Your task to perform on an android device: snooze an email in the gmail app Image 0: 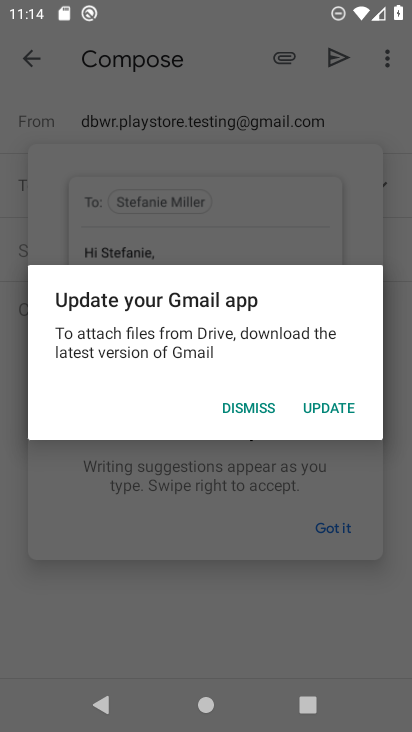
Step 0: press home button
Your task to perform on an android device: snooze an email in the gmail app Image 1: 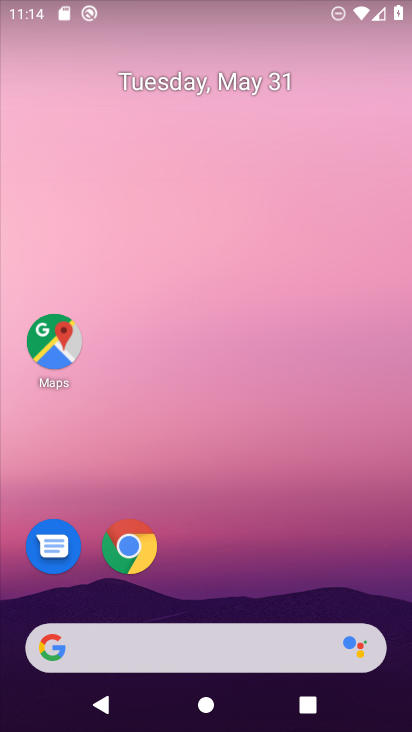
Step 1: drag from (316, 626) to (344, 76)
Your task to perform on an android device: snooze an email in the gmail app Image 2: 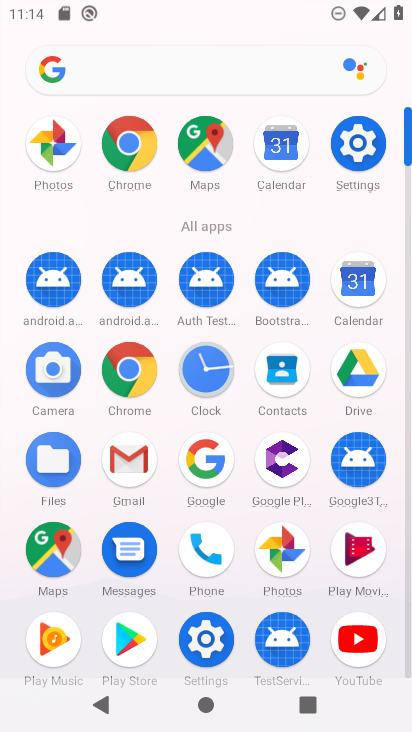
Step 2: click (123, 465)
Your task to perform on an android device: snooze an email in the gmail app Image 3: 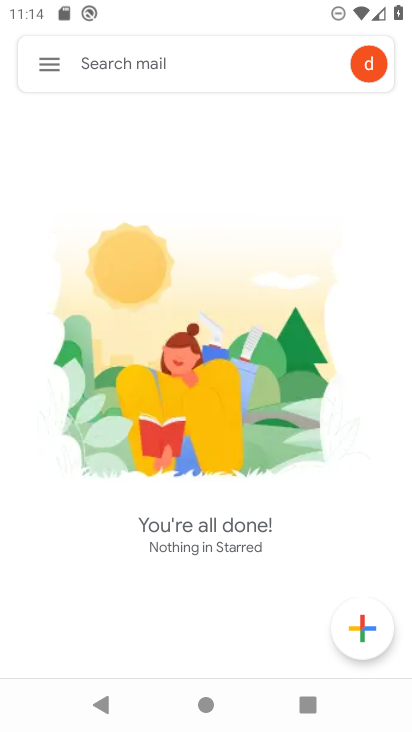
Step 3: click (51, 65)
Your task to perform on an android device: snooze an email in the gmail app Image 4: 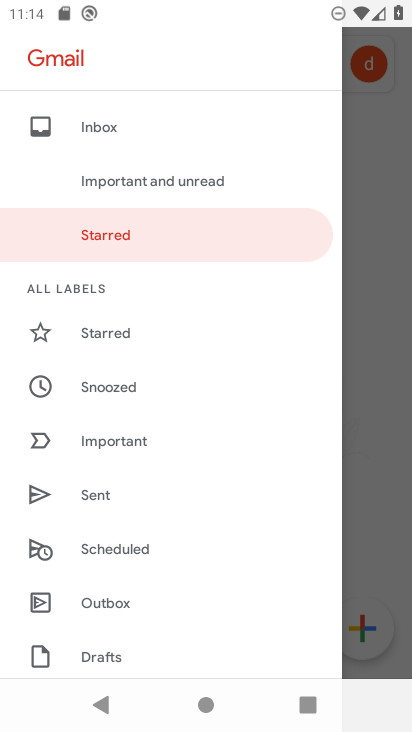
Step 4: click (129, 389)
Your task to perform on an android device: snooze an email in the gmail app Image 5: 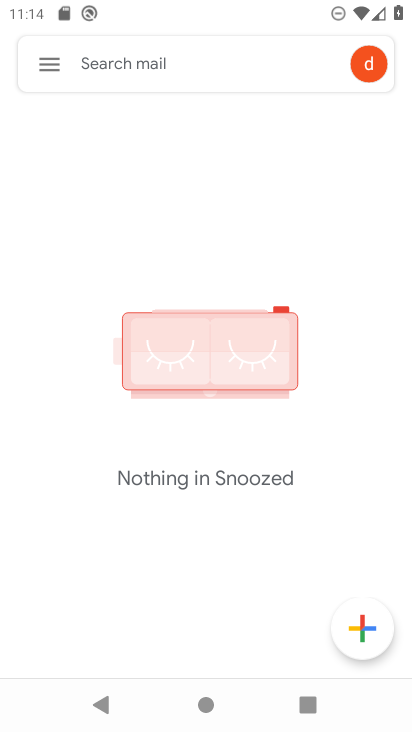
Step 5: task complete